Your task to perform on an android device: turn off smart reply in the gmail app Image 0: 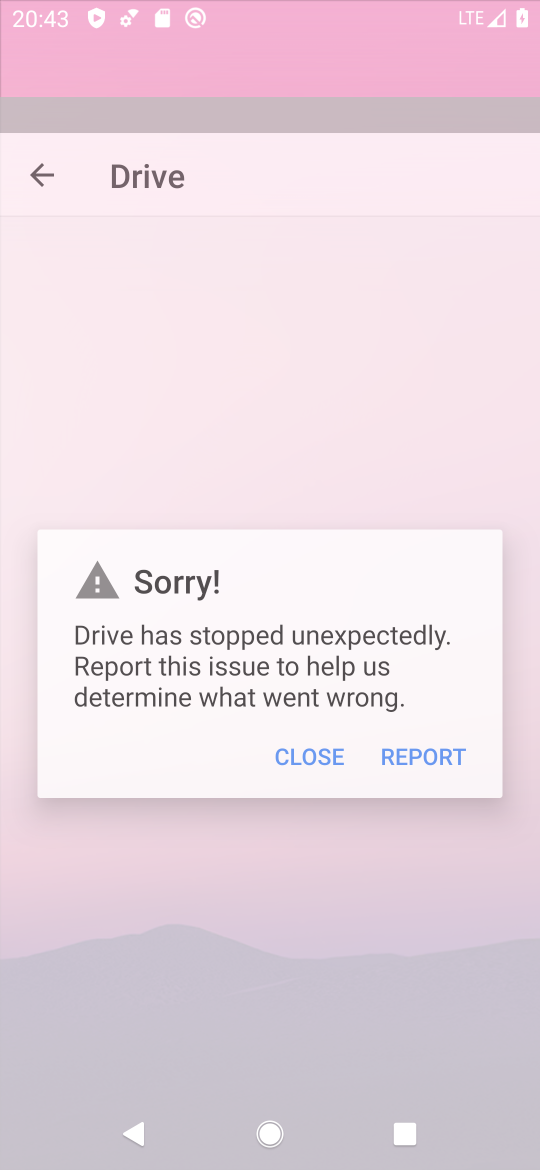
Step 0: press back button
Your task to perform on an android device: turn off smart reply in the gmail app Image 1: 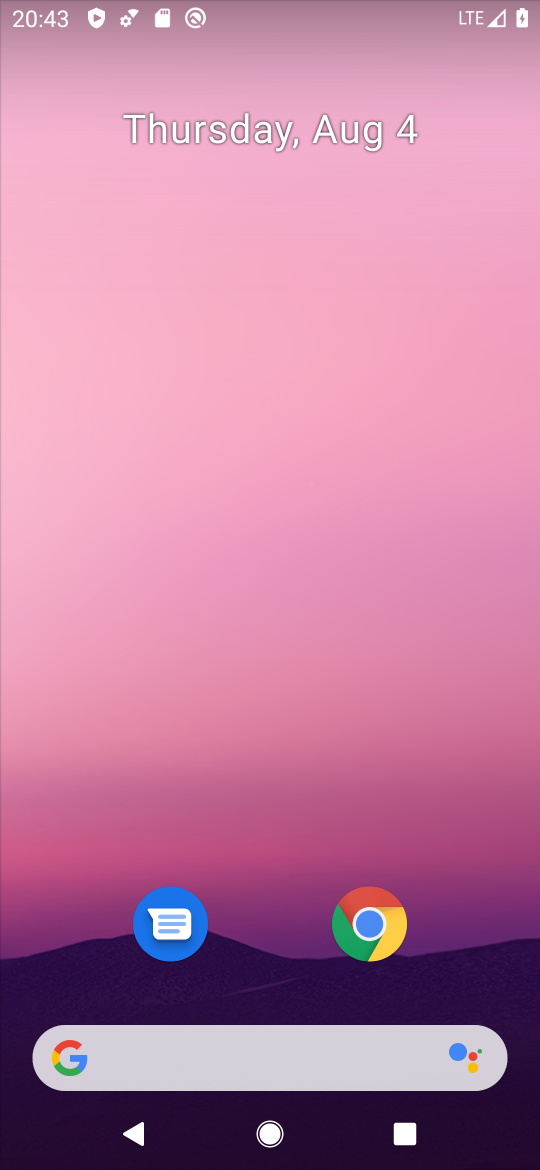
Step 1: drag from (250, 1021) to (501, 887)
Your task to perform on an android device: turn off smart reply in the gmail app Image 2: 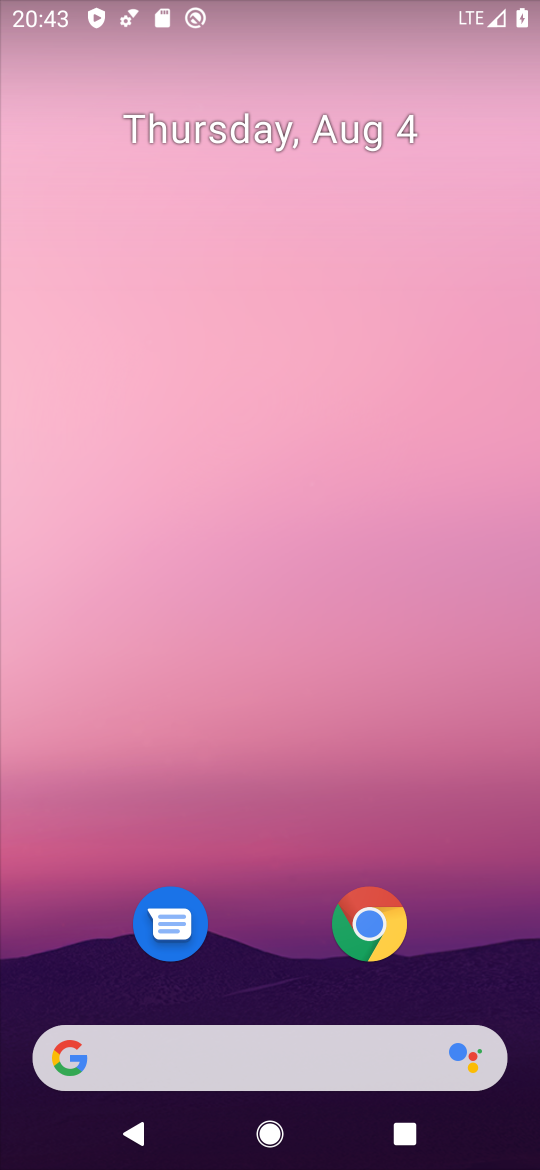
Step 2: drag from (308, 990) to (250, 71)
Your task to perform on an android device: turn off smart reply in the gmail app Image 3: 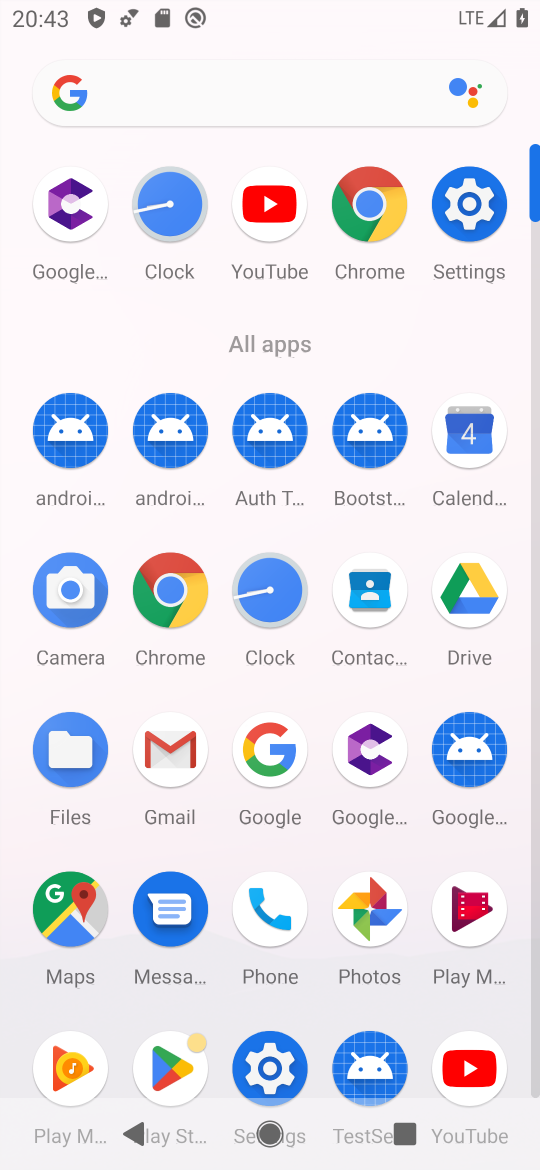
Step 3: click (147, 742)
Your task to perform on an android device: turn off smart reply in the gmail app Image 4: 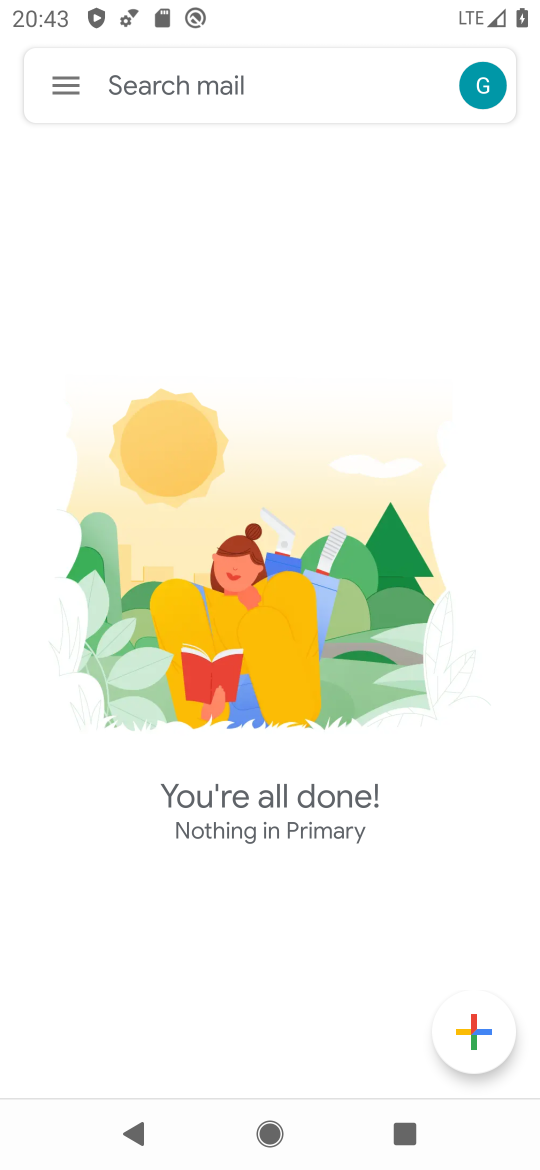
Step 4: click (57, 87)
Your task to perform on an android device: turn off smart reply in the gmail app Image 5: 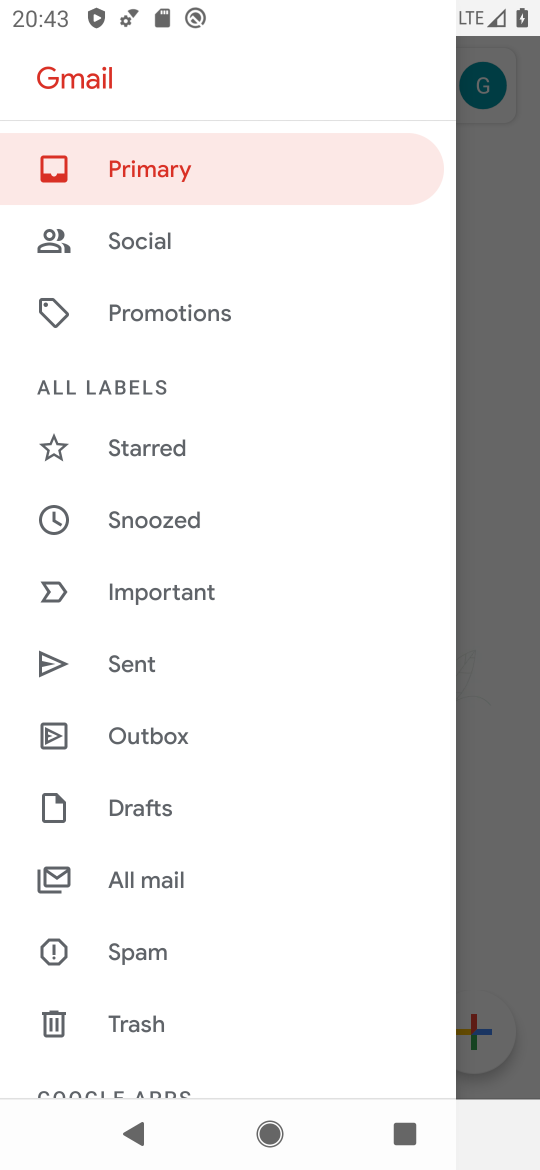
Step 5: drag from (284, 840) to (243, 276)
Your task to perform on an android device: turn off smart reply in the gmail app Image 6: 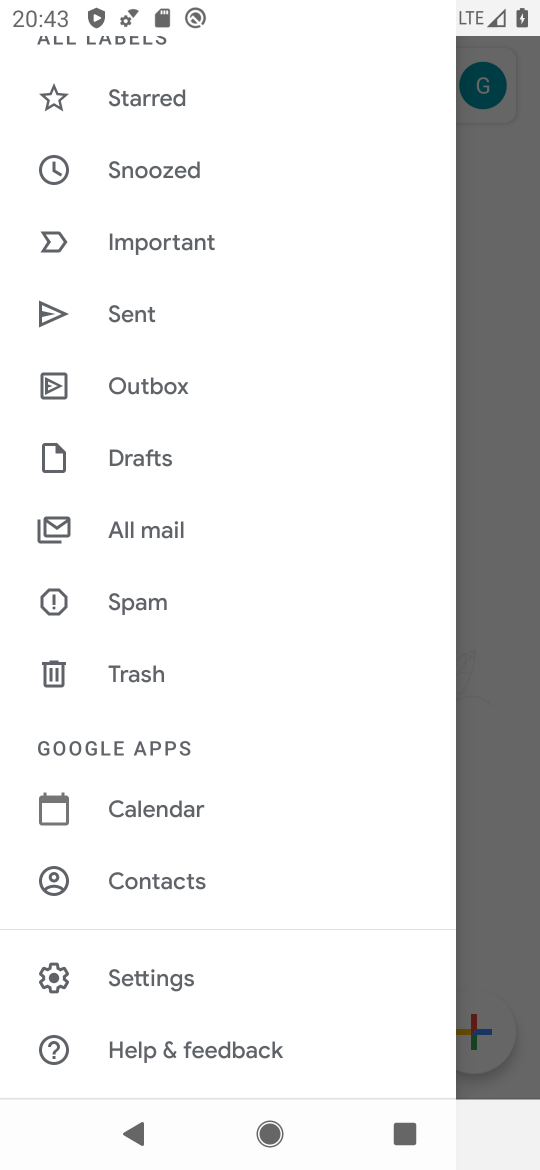
Step 6: click (143, 952)
Your task to perform on an android device: turn off smart reply in the gmail app Image 7: 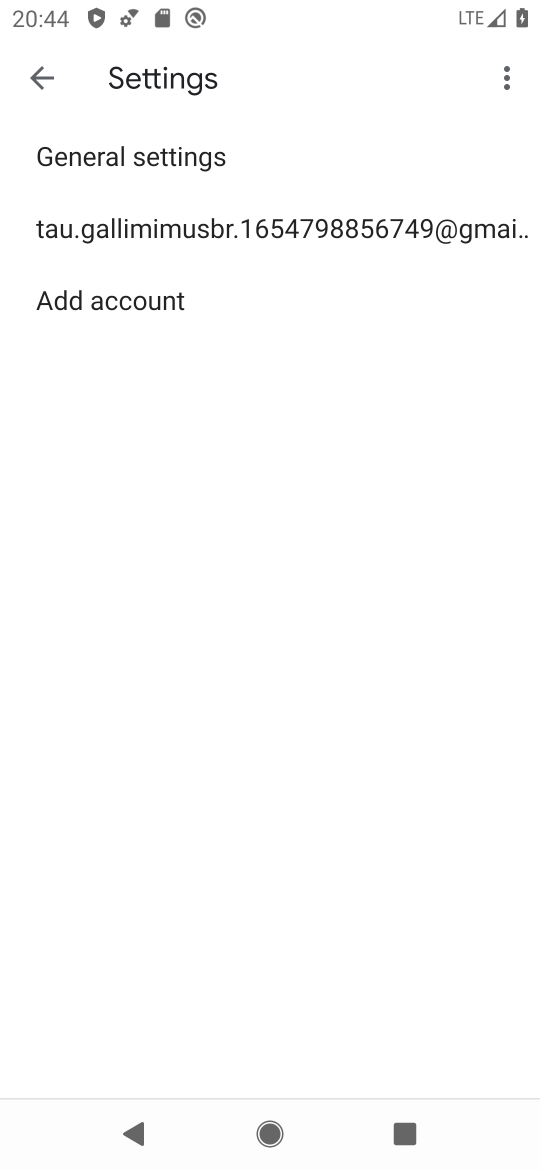
Step 7: click (190, 219)
Your task to perform on an android device: turn off smart reply in the gmail app Image 8: 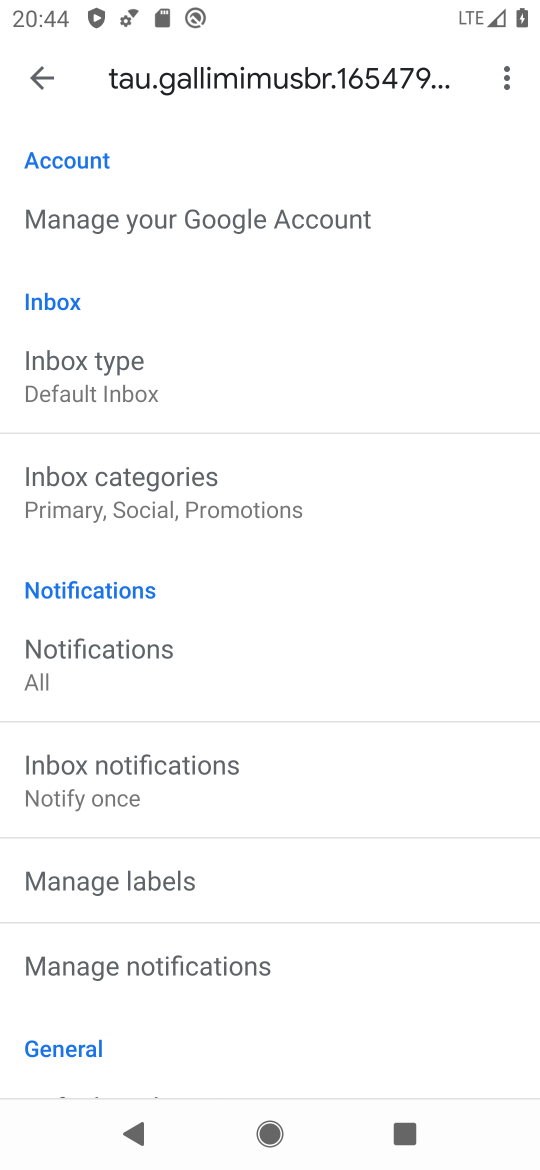
Step 8: drag from (184, 775) to (146, 95)
Your task to perform on an android device: turn off smart reply in the gmail app Image 9: 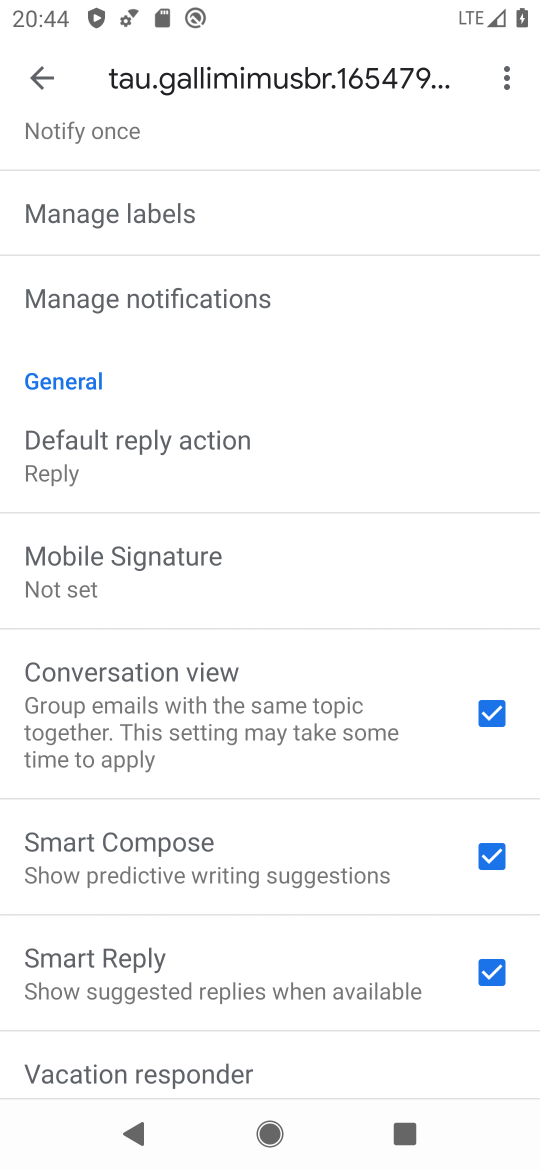
Step 9: click (477, 960)
Your task to perform on an android device: turn off smart reply in the gmail app Image 10: 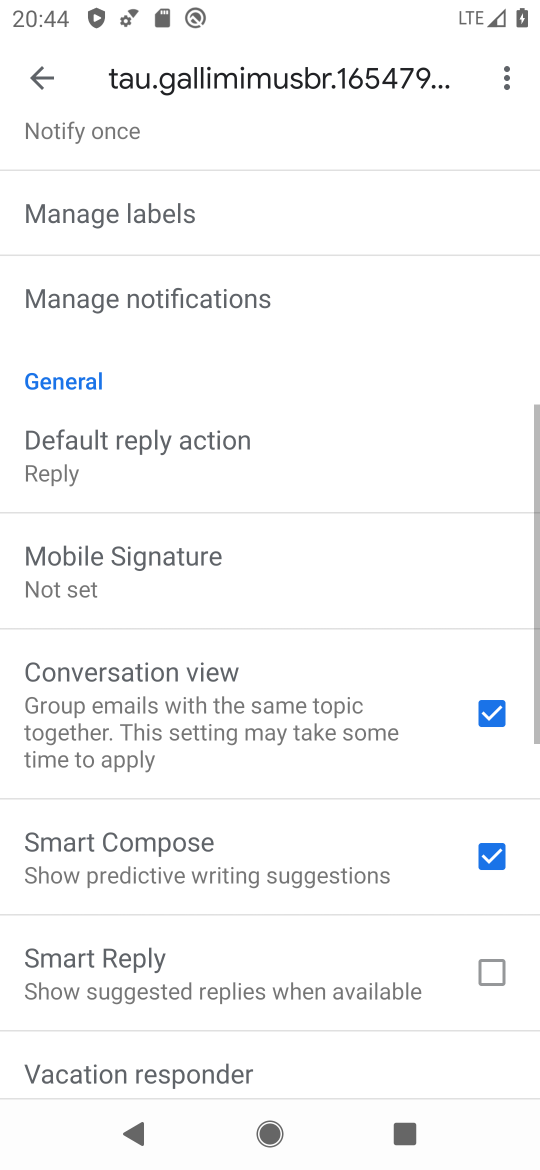
Step 10: task complete